Your task to perform on an android device: turn on location history Image 0: 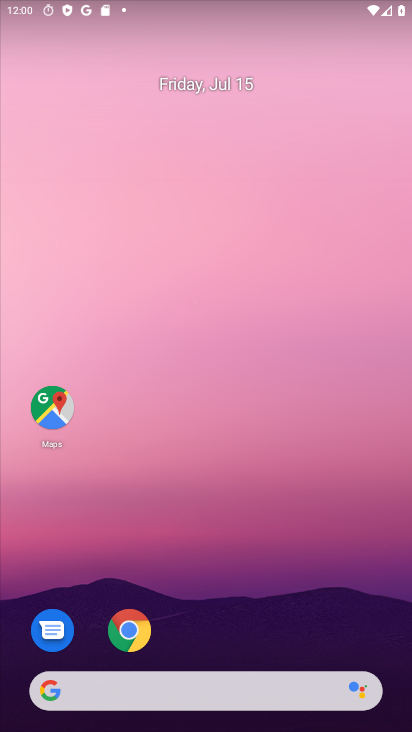
Step 0: drag from (187, 652) to (226, 155)
Your task to perform on an android device: turn on location history Image 1: 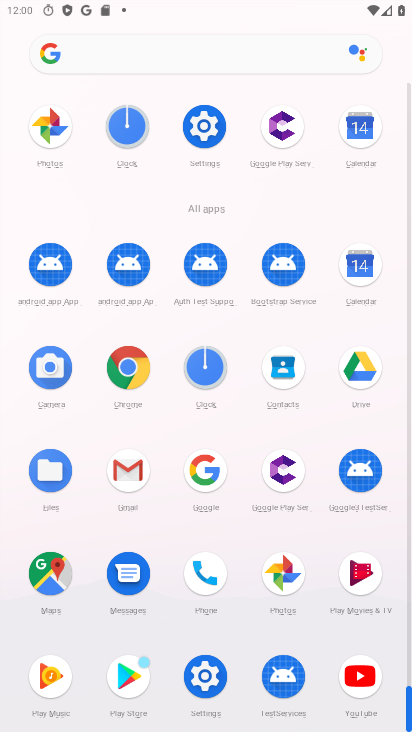
Step 1: click (197, 127)
Your task to perform on an android device: turn on location history Image 2: 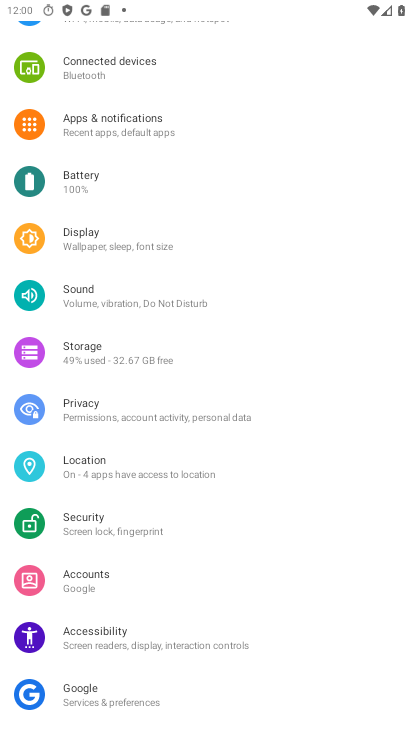
Step 2: click (109, 461)
Your task to perform on an android device: turn on location history Image 3: 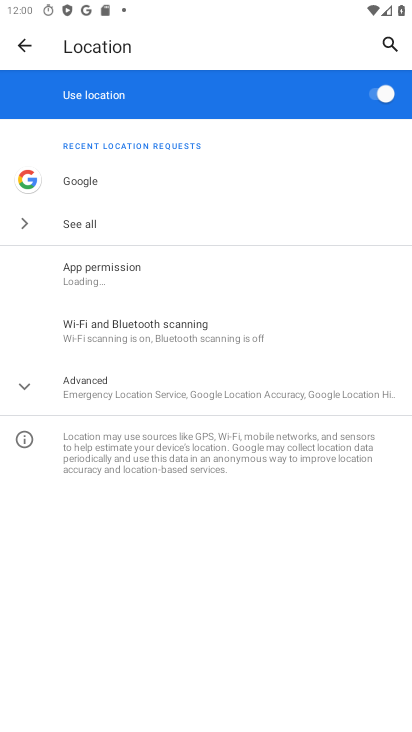
Step 3: drag from (233, 615) to (290, 296)
Your task to perform on an android device: turn on location history Image 4: 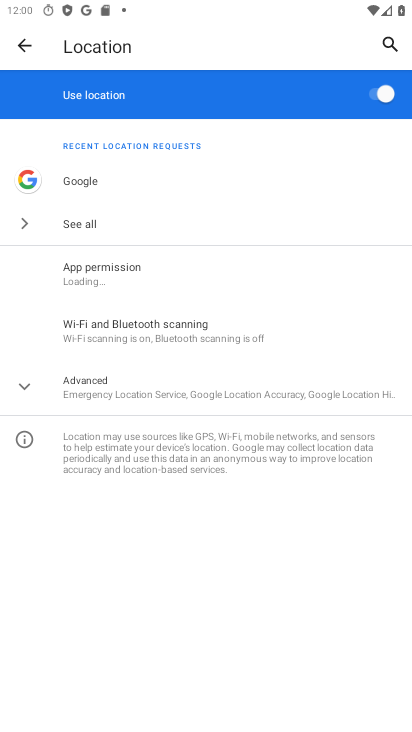
Step 4: drag from (145, 390) to (221, 146)
Your task to perform on an android device: turn on location history Image 5: 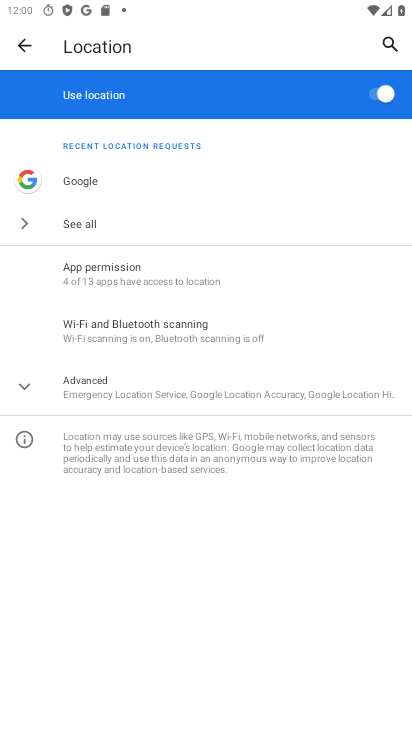
Step 5: click (109, 374)
Your task to perform on an android device: turn on location history Image 6: 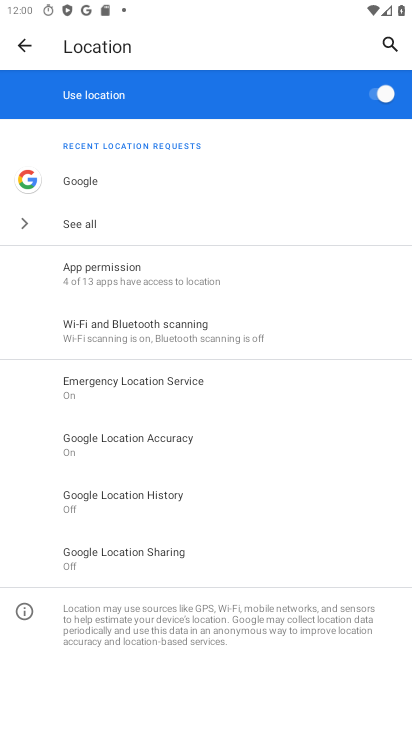
Step 6: drag from (153, 521) to (228, 231)
Your task to perform on an android device: turn on location history Image 7: 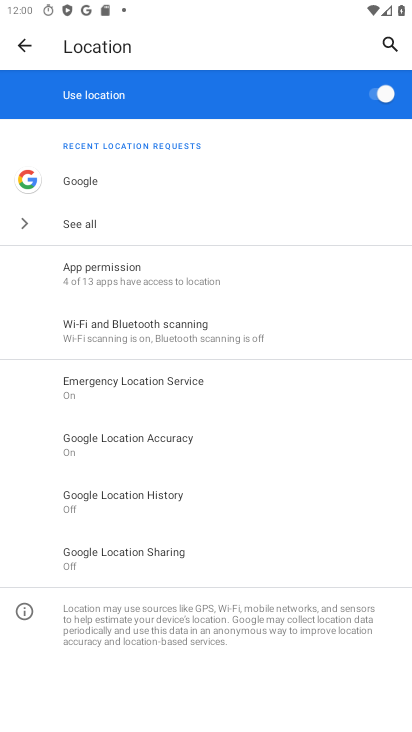
Step 7: drag from (169, 622) to (240, 345)
Your task to perform on an android device: turn on location history Image 8: 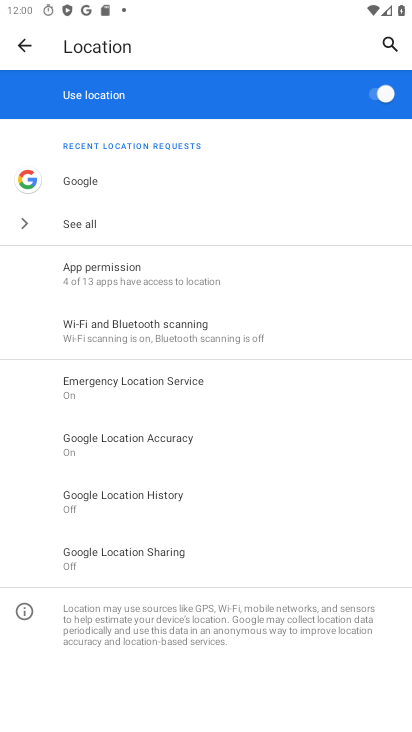
Step 8: drag from (180, 639) to (216, 371)
Your task to perform on an android device: turn on location history Image 9: 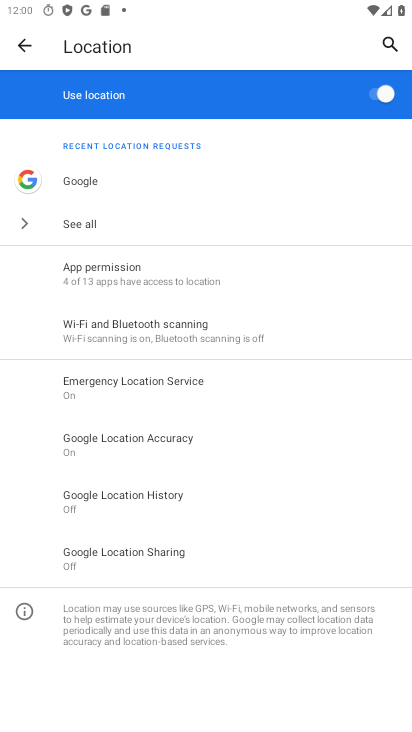
Step 9: click (161, 497)
Your task to perform on an android device: turn on location history Image 10: 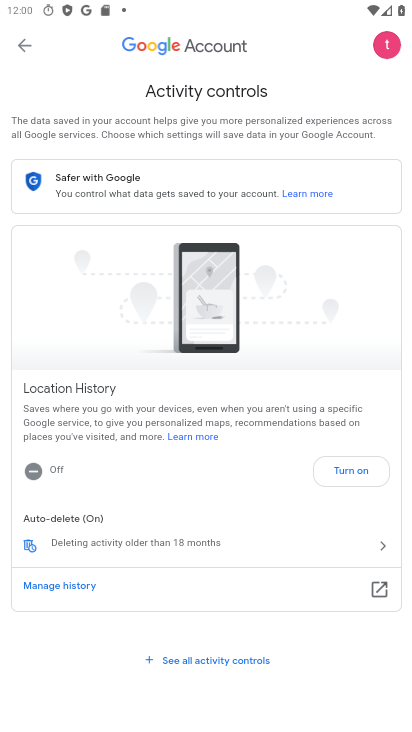
Step 10: drag from (227, 534) to (264, 291)
Your task to perform on an android device: turn on location history Image 11: 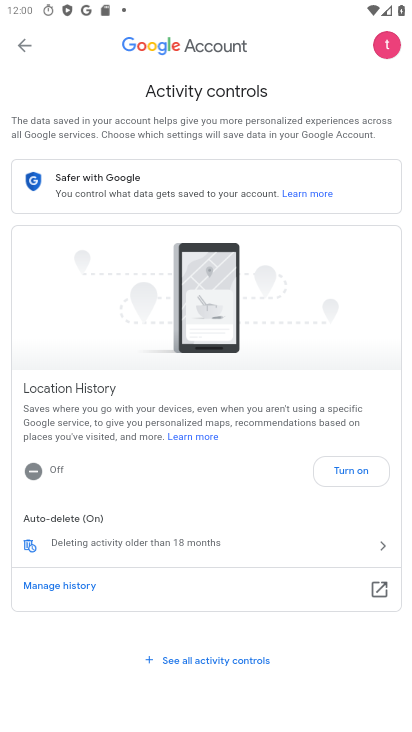
Step 11: click (355, 467)
Your task to perform on an android device: turn on location history Image 12: 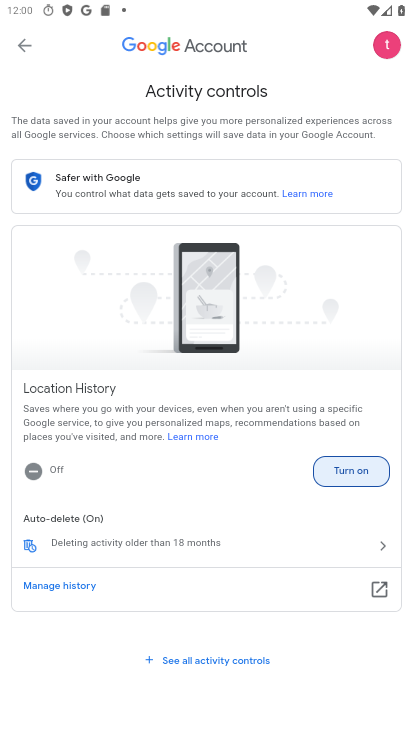
Step 12: drag from (311, 559) to (351, 282)
Your task to perform on an android device: turn on location history Image 13: 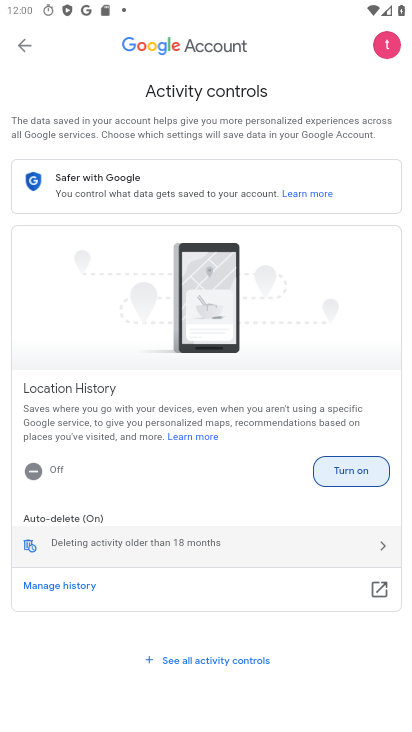
Step 13: click (344, 471)
Your task to perform on an android device: turn on location history Image 14: 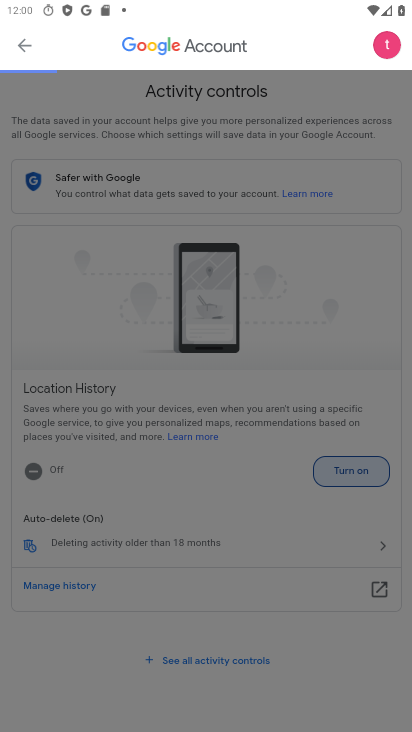
Step 14: drag from (281, 530) to (327, 313)
Your task to perform on an android device: turn on location history Image 15: 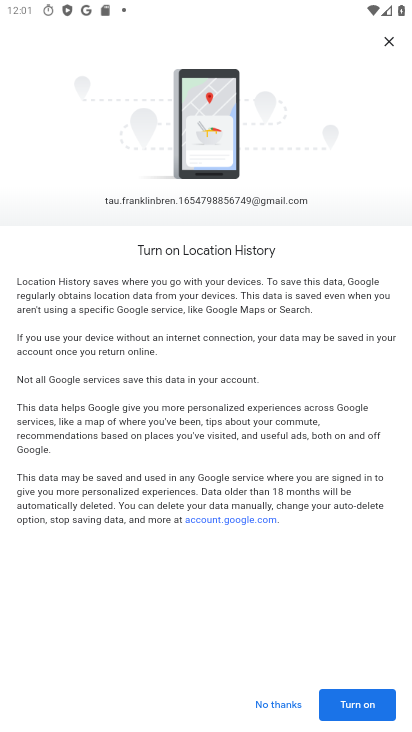
Step 15: click (352, 709)
Your task to perform on an android device: turn on location history Image 16: 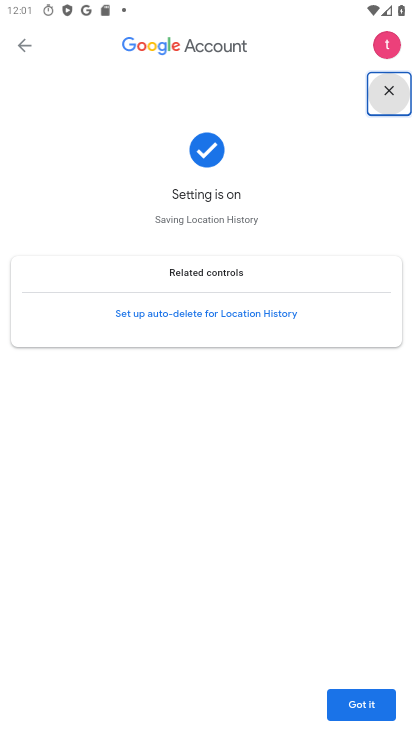
Step 16: drag from (302, 577) to (330, 385)
Your task to perform on an android device: turn on location history Image 17: 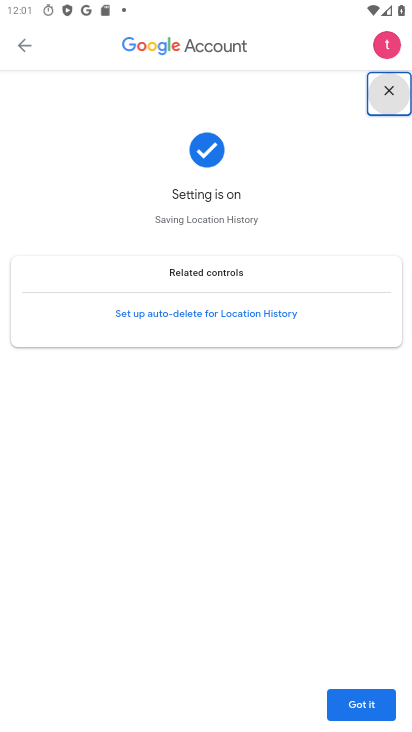
Step 17: click (365, 697)
Your task to perform on an android device: turn on location history Image 18: 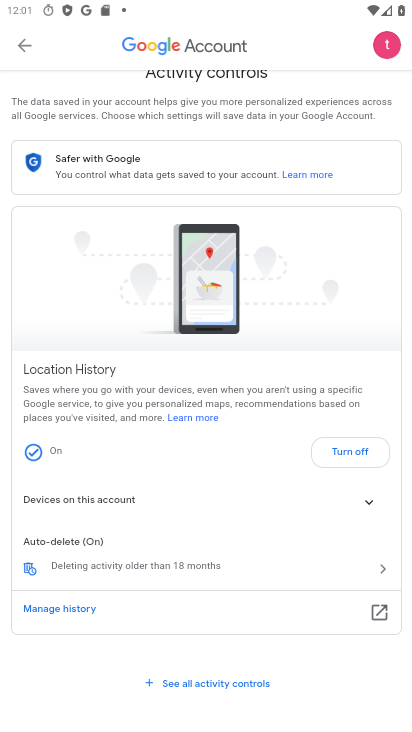
Step 18: task complete